Your task to perform on an android device: Toggle the flashlight Image 0: 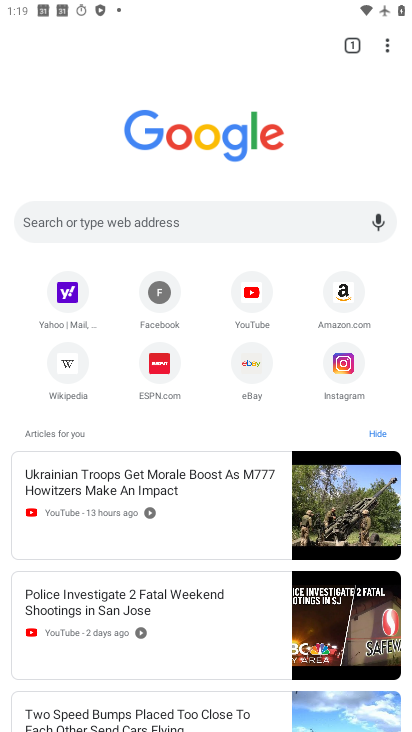
Step 0: press home button
Your task to perform on an android device: Toggle the flashlight Image 1: 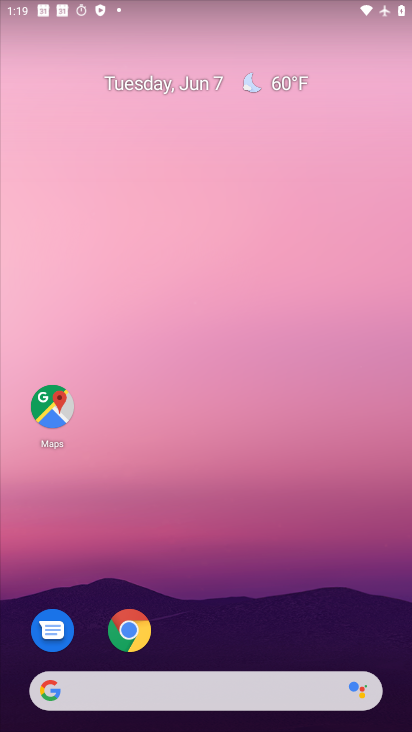
Step 1: drag from (374, 658) to (268, 146)
Your task to perform on an android device: Toggle the flashlight Image 2: 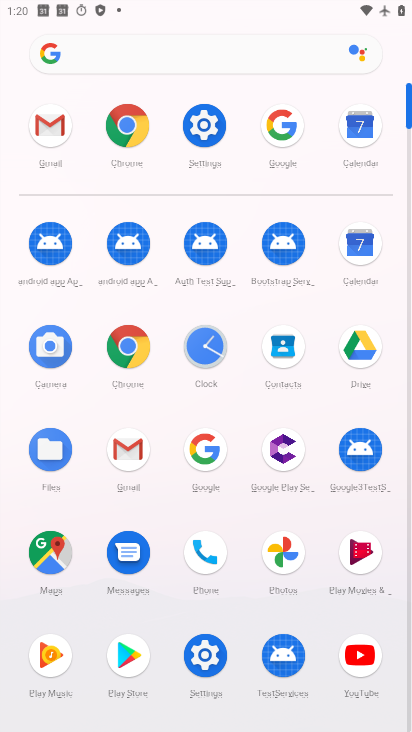
Step 2: click (202, 640)
Your task to perform on an android device: Toggle the flashlight Image 3: 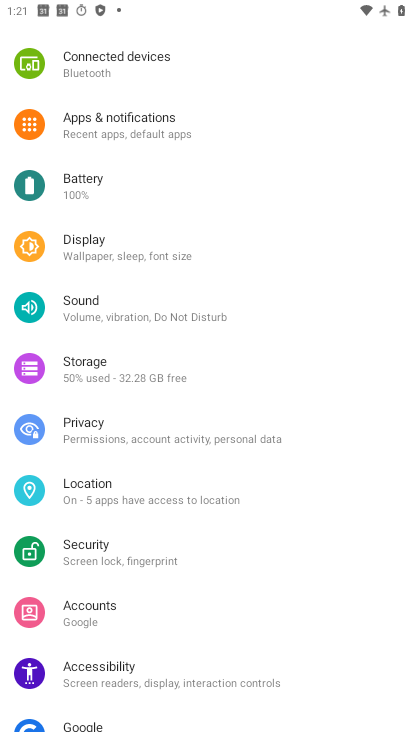
Step 3: task complete